Your task to perform on an android device: turn on location history Image 0: 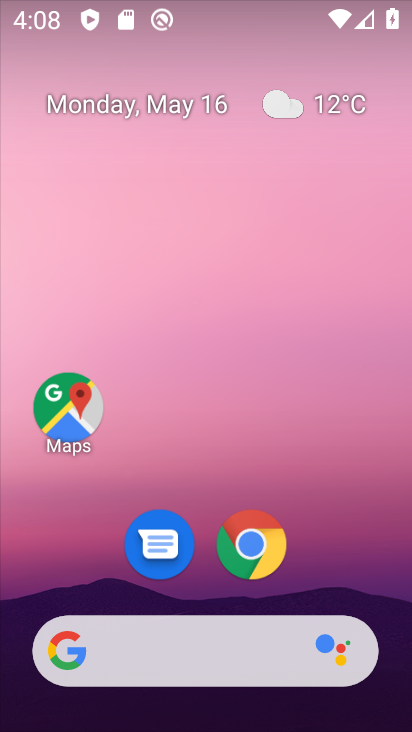
Step 0: drag from (337, 556) to (244, 85)
Your task to perform on an android device: turn on location history Image 1: 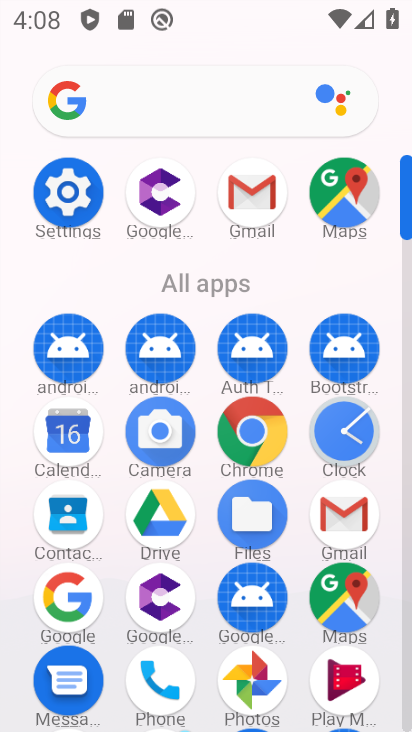
Step 1: click (67, 187)
Your task to perform on an android device: turn on location history Image 2: 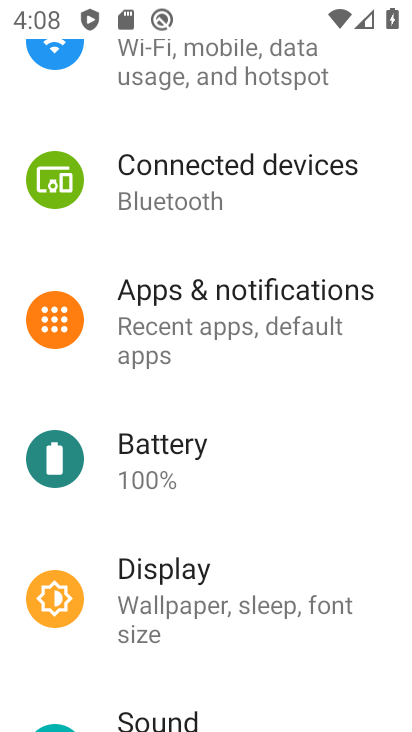
Step 2: drag from (239, 390) to (251, 292)
Your task to perform on an android device: turn on location history Image 3: 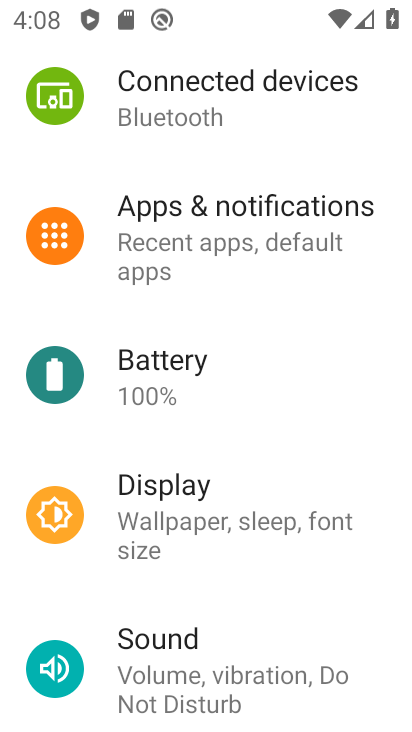
Step 3: drag from (203, 410) to (247, 323)
Your task to perform on an android device: turn on location history Image 4: 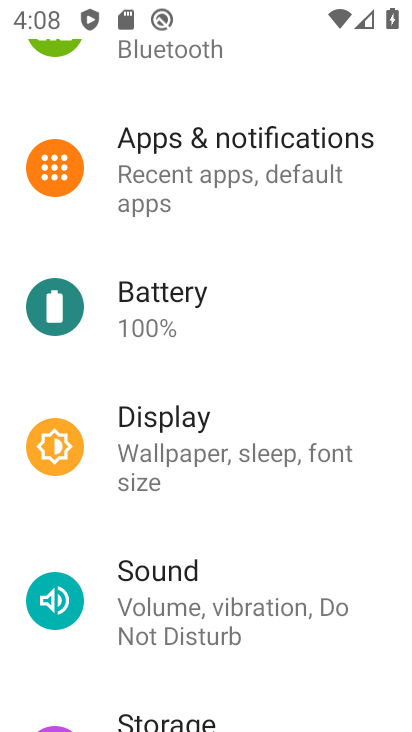
Step 4: drag from (194, 501) to (213, 365)
Your task to perform on an android device: turn on location history Image 5: 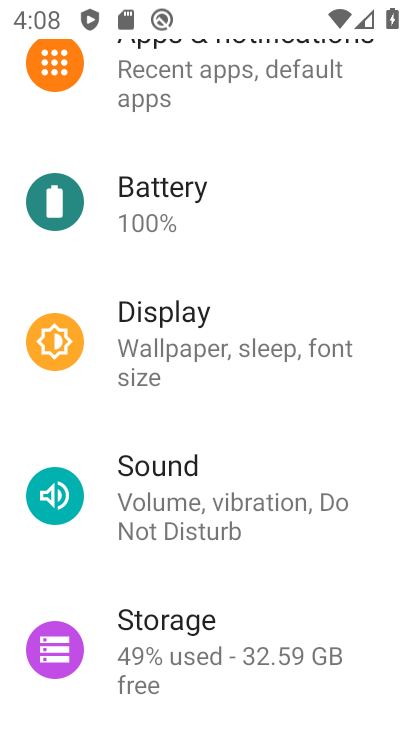
Step 5: drag from (193, 566) to (277, 413)
Your task to perform on an android device: turn on location history Image 6: 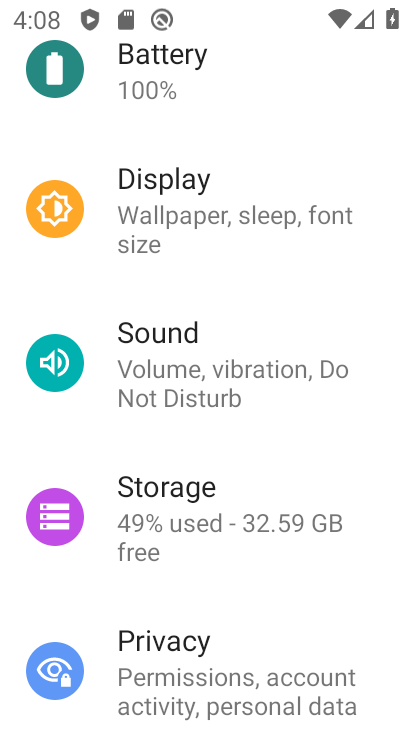
Step 6: drag from (185, 586) to (239, 439)
Your task to perform on an android device: turn on location history Image 7: 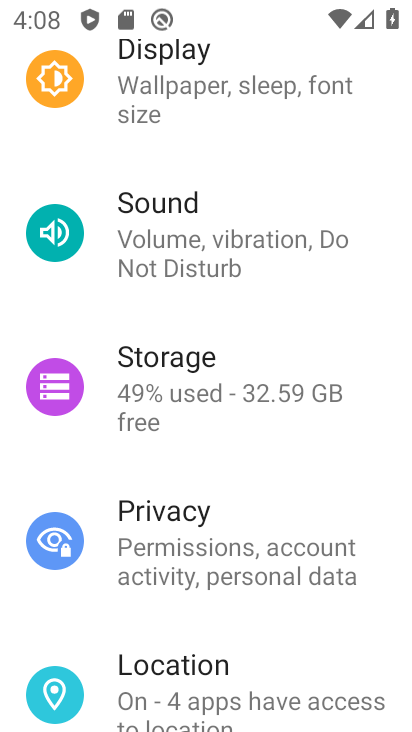
Step 7: drag from (148, 602) to (226, 451)
Your task to perform on an android device: turn on location history Image 8: 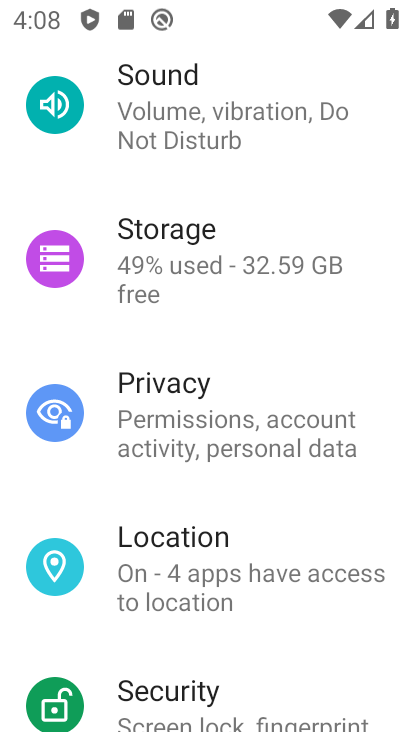
Step 8: click (155, 535)
Your task to perform on an android device: turn on location history Image 9: 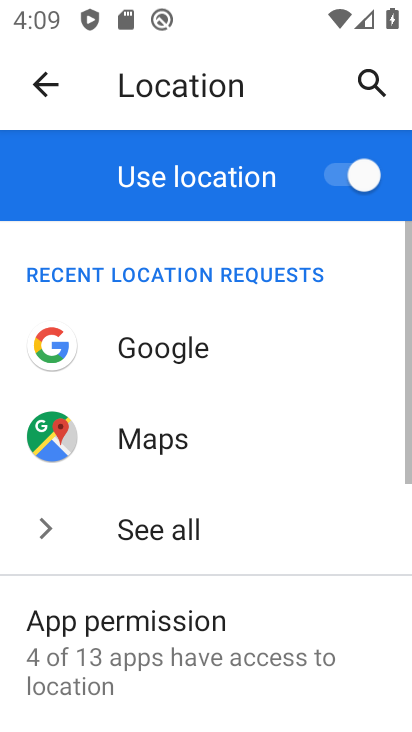
Step 9: drag from (171, 560) to (268, 413)
Your task to perform on an android device: turn on location history Image 10: 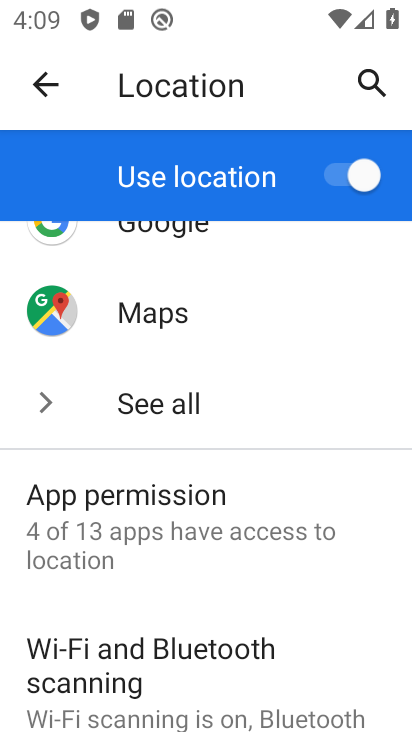
Step 10: drag from (148, 587) to (293, 387)
Your task to perform on an android device: turn on location history Image 11: 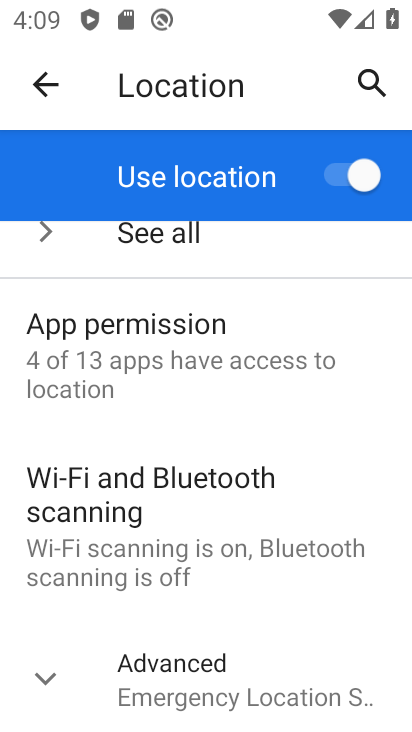
Step 11: drag from (171, 607) to (260, 466)
Your task to perform on an android device: turn on location history Image 12: 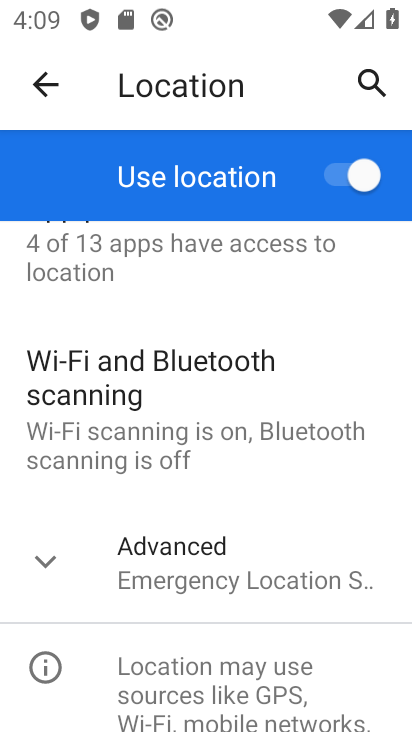
Step 12: click (198, 577)
Your task to perform on an android device: turn on location history Image 13: 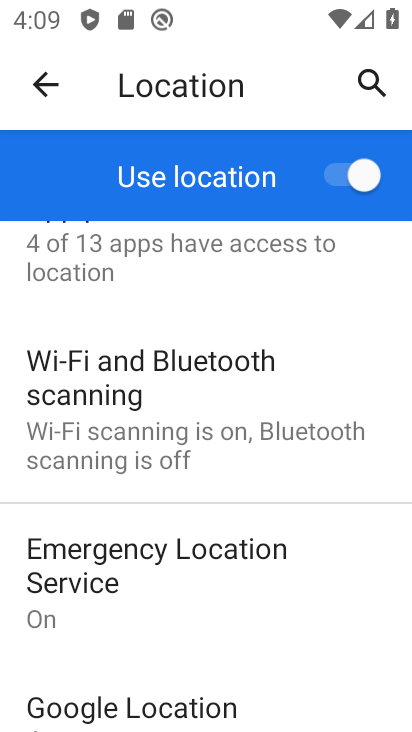
Step 13: drag from (149, 658) to (275, 496)
Your task to perform on an android device: turn on location history Image 14: 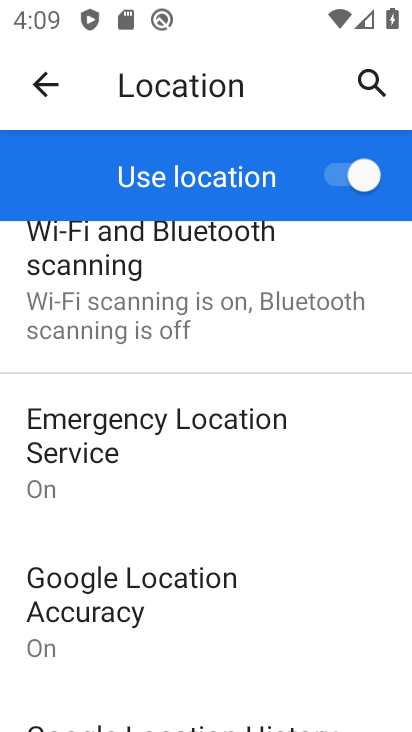
Step 14: drag from (166, 651) to (247, 506)
Your task to perform on an android device: turn on location history Image 15: 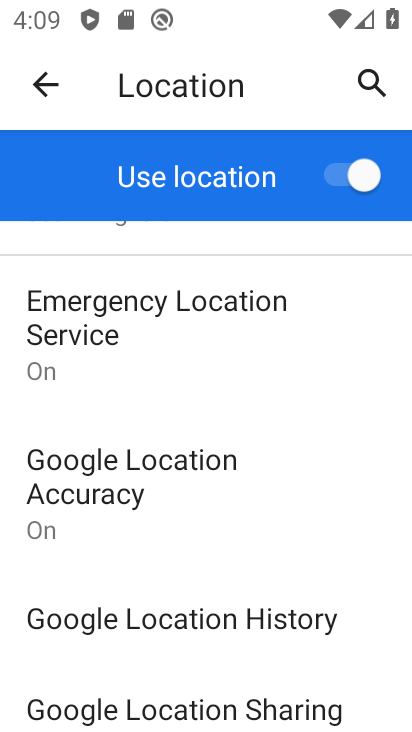
Step 15: click (200, 621)
Your task to perform on an android device: turn on location history Image 16: 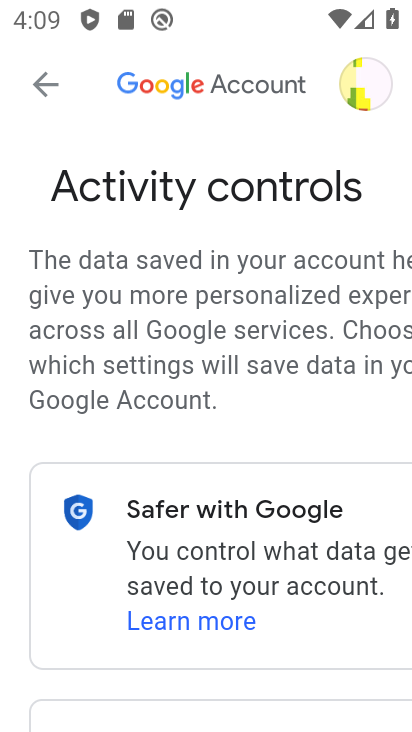
Step 16: task complete